Your task to perform on an android device: change the clock display to digital Image 0: 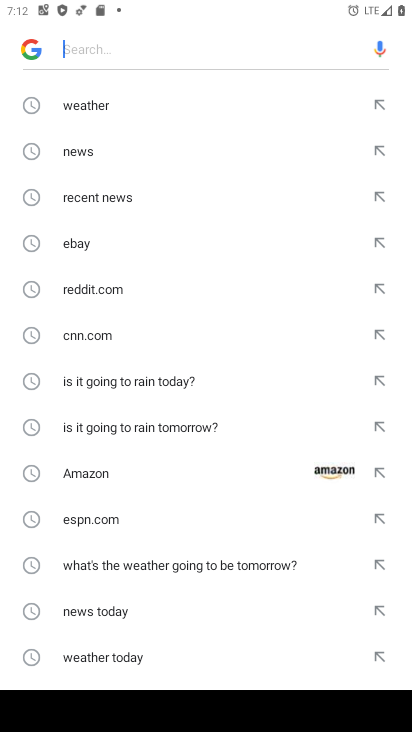
Step 0: press home button
Your task to perform on an android device: change the clock display to digital Image 1: 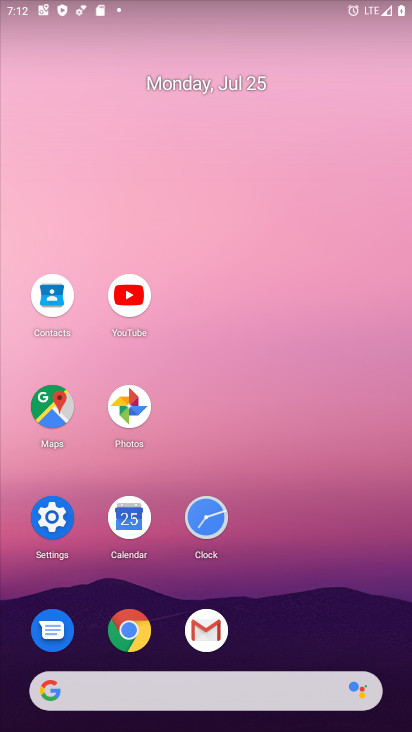
Step 1: click (205, 527)
Your task to perform on an android device: change the clock display to digital Image 2: 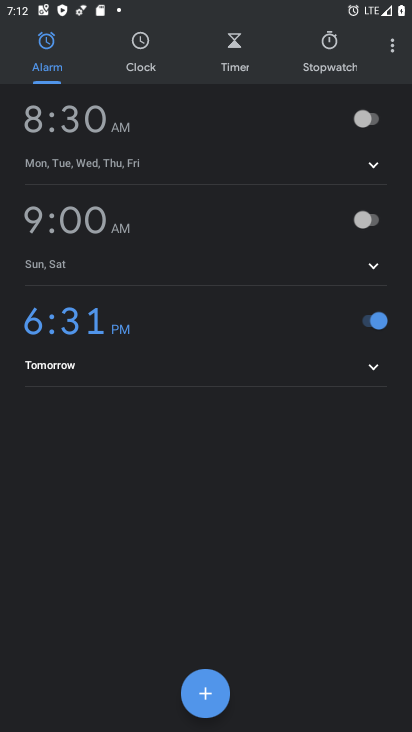
Step 2: click (390, 44)
Your task to perform on an android device: change the clock display to digital Image 3: 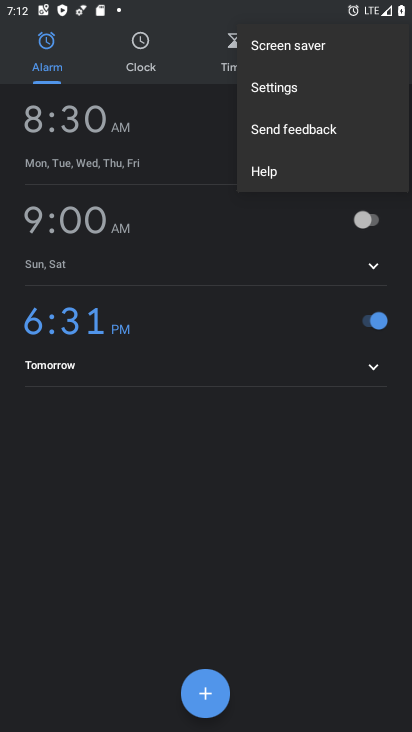
Step 3: click (271, 87)
Your task to perform on an android device: change the clock display to digital Image 4: 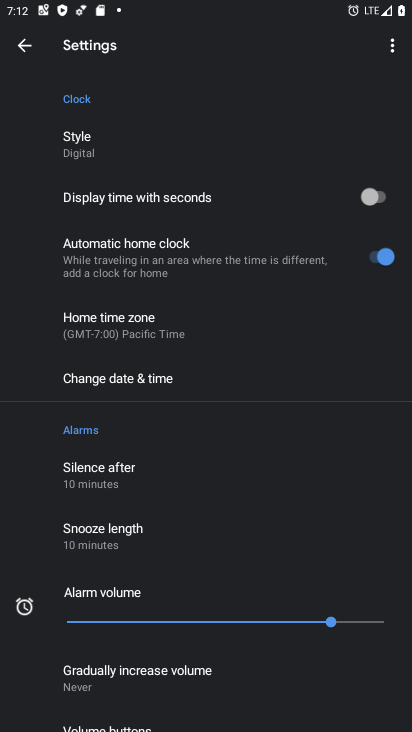
Step 4: click (76, 143)
Your task to perform on an android device: change the clock display to digital Image 5: 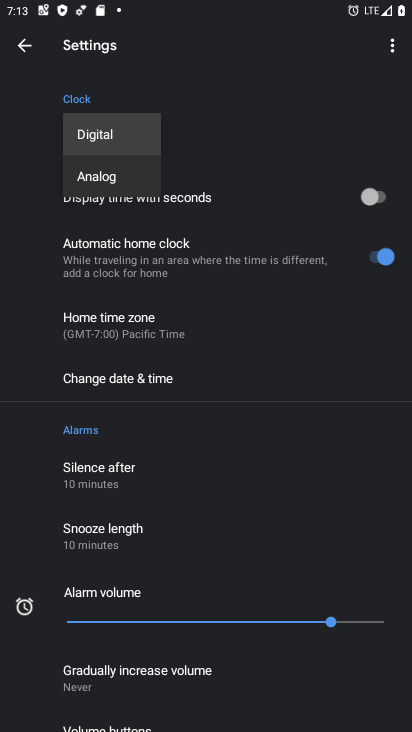
Step 5: task complete